Your task to perform on an android device: find photos in the google photos app Image 0: 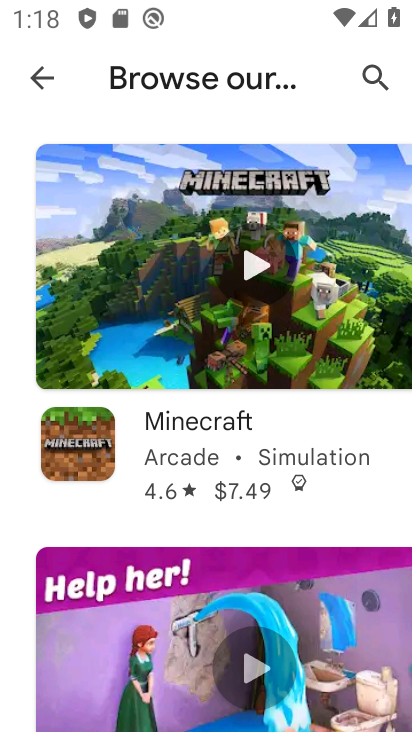
Step 0: press home button
Your task to perform on an android device: find photos in the google photos app Image 1: 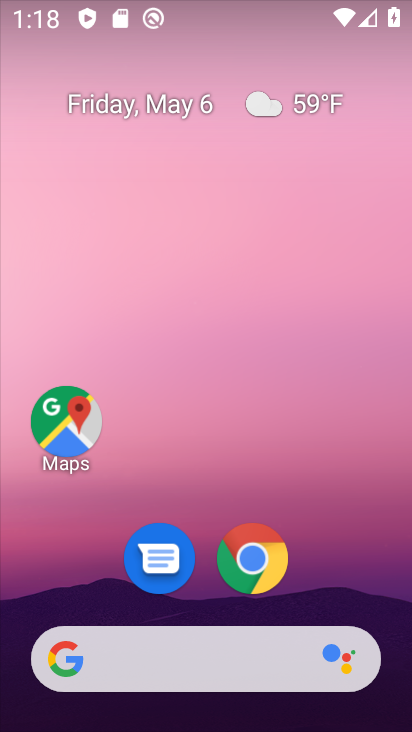
Step 1: drag from (208, 727) to (210, 184)
Your task to perform on an android device: find photos in the google photos app Image 2: 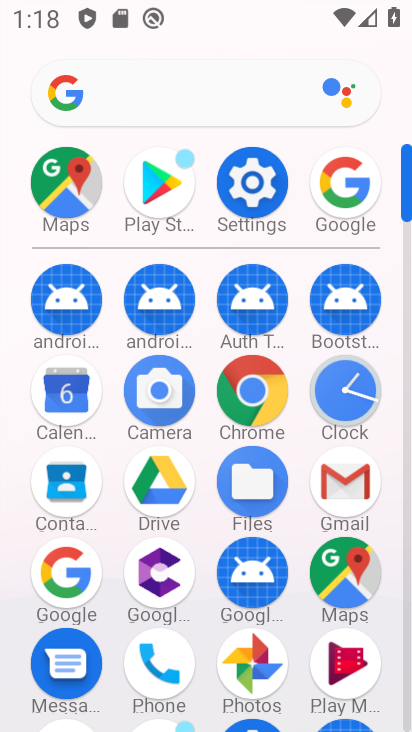
Step 2: click (342, 566)
Your task to perform on an android device: find photos in the google photos app Image 3: 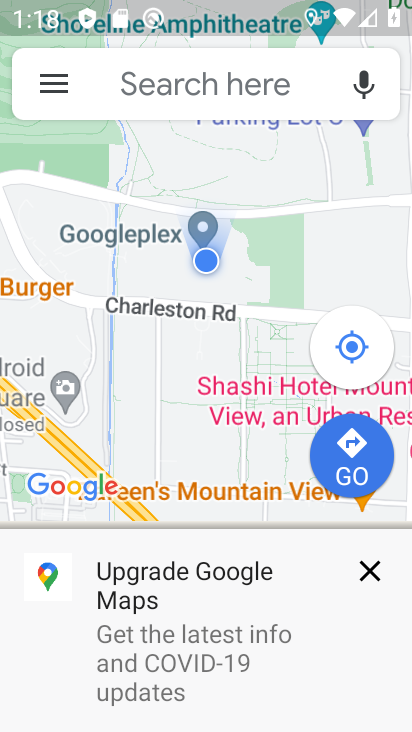
Step 3: press home button
Your task to perform on an android device: find photos in the google photos app Image 4: 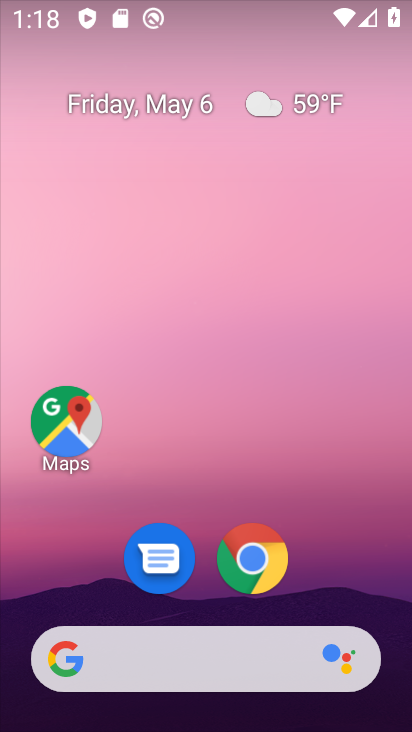
Step 4: drag from (206, 721) to (207, 191)
Your task to perform on an android device: find photos in the google photos app Image 5: 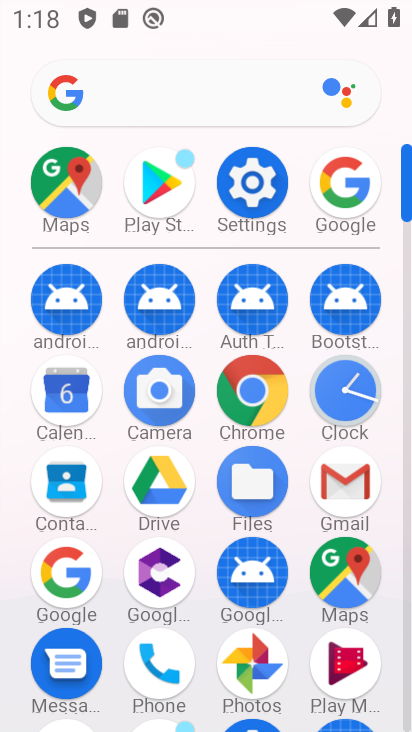
Step 5: click (261, 651)
Your task to perform on an android device: find photos in the google photos app Image 6: 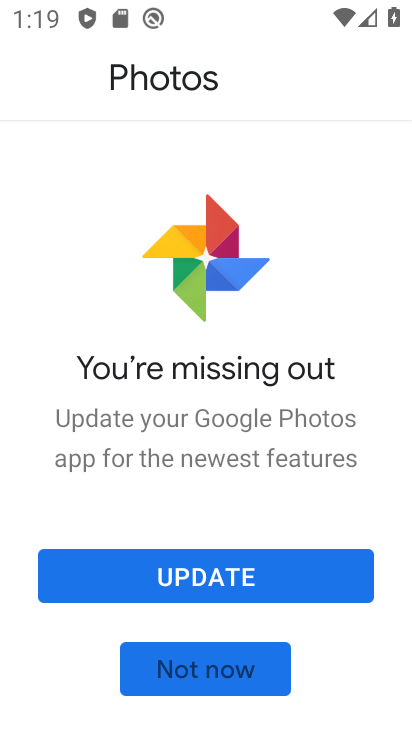
Step 6: task complete